Your task to perform on an android device: Open battery settings Image 0: 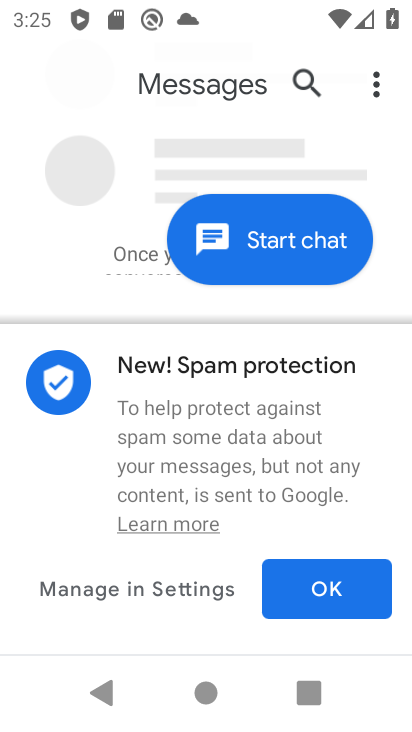
Step 0: press home button
Your task to perform on an android device: Open battery settings Image 1: 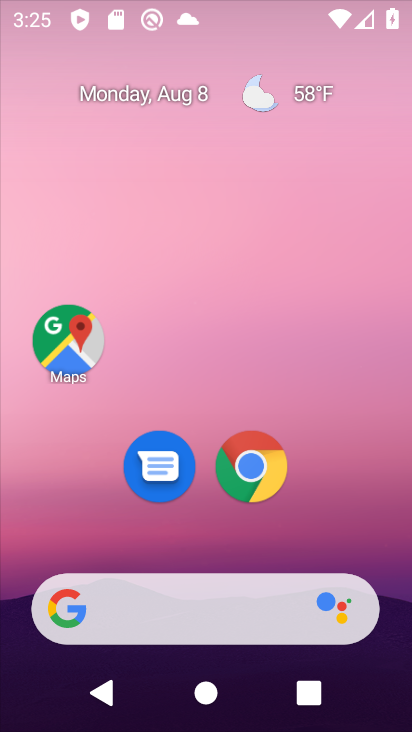
Step 1: drag from (216, 572) to (222, 94)
Your task to perform on an android device: Open battery settings Image 2: 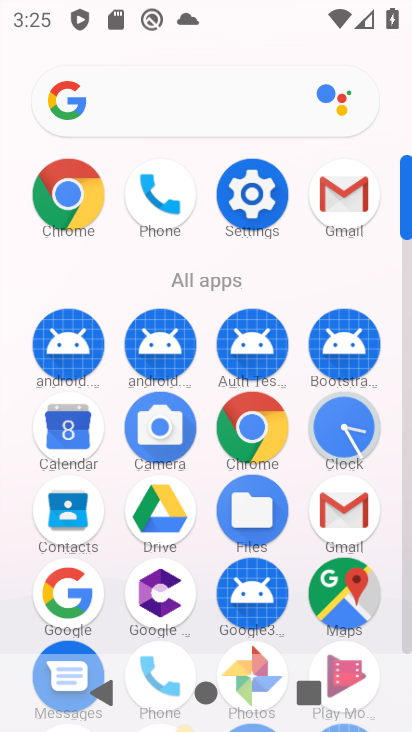
Step 2: click (237, 192)
Your task to perform on an android device: Open battery settings Image 3: 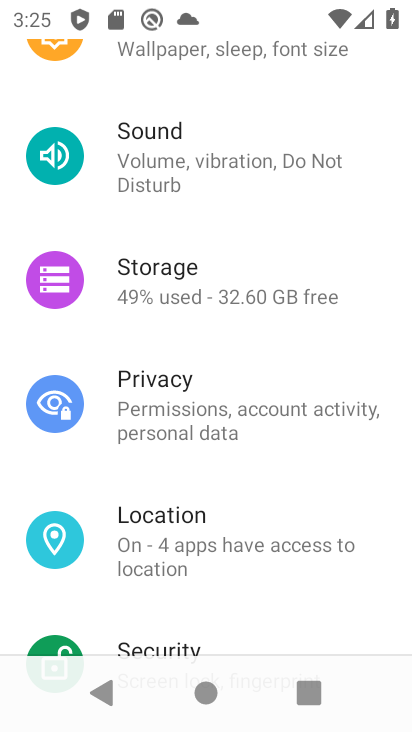
Step 3: drag from (187, 512) to (200, 585)
Your task to perform on an android device: Open battery settings Image 4: 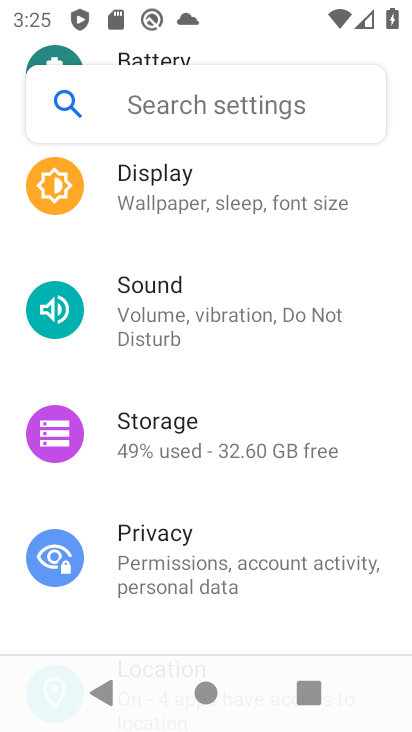
Step 4: drag from (197, 543) to (203, 647)
Your task to perform on an android device: Open battery settings Image 5: 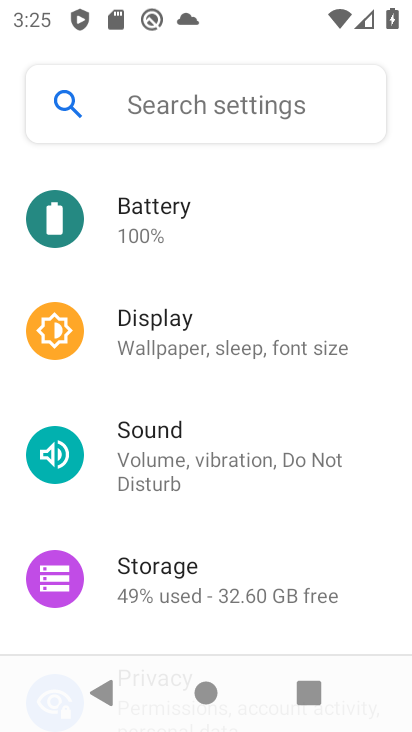
Step 5: click (186, 219)
Your task to perform on an android device: Open battery settings Image 6: 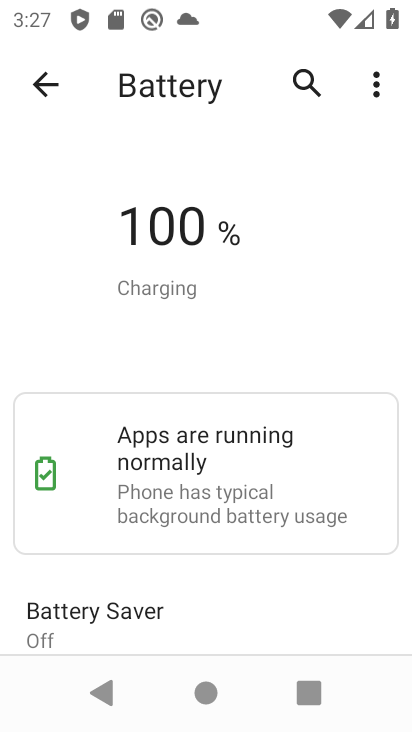
Step 6: task complete